Your task to perform on an android device: Search for seafood restaurants on Google Maps Image 0: 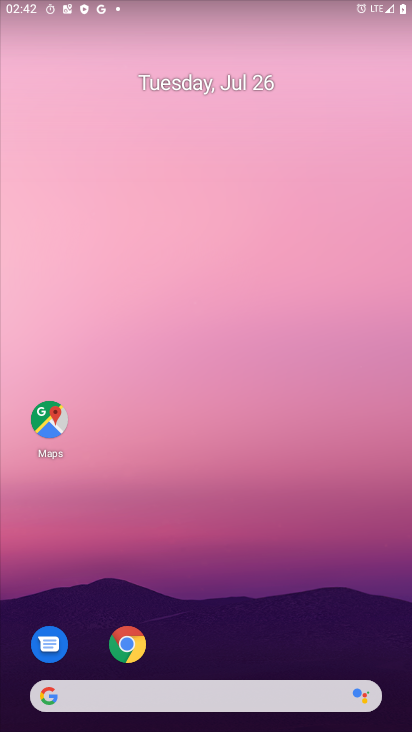
Step 0: click (53, 421)
Your task to perform on an android device: Search for seafood restaurants on Google Maps Image 1: 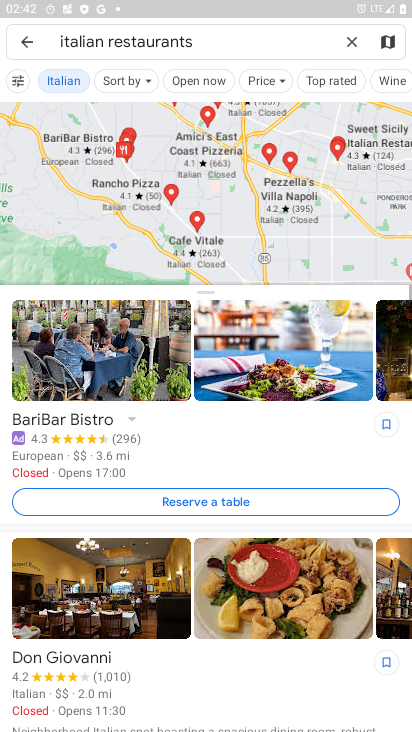
Step 1: click (356, 42)
Your task to perform on an android device: Search for seafood restaurants on Google Maps Image 2: 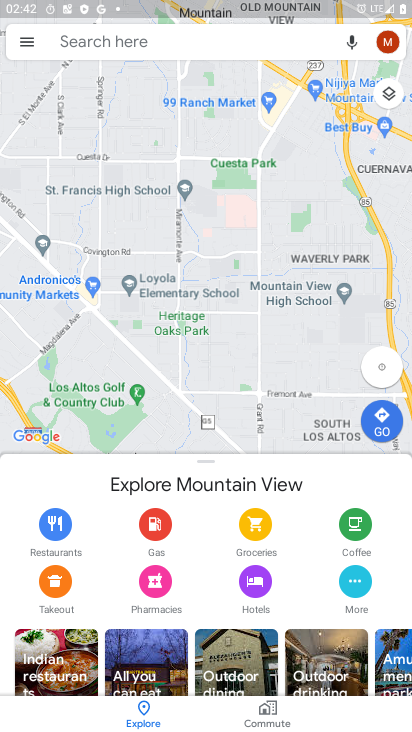
Step 2: click (126, 47)
Your task to perform on an android device: Search for seafood restaurants on Google Maps Image 3: 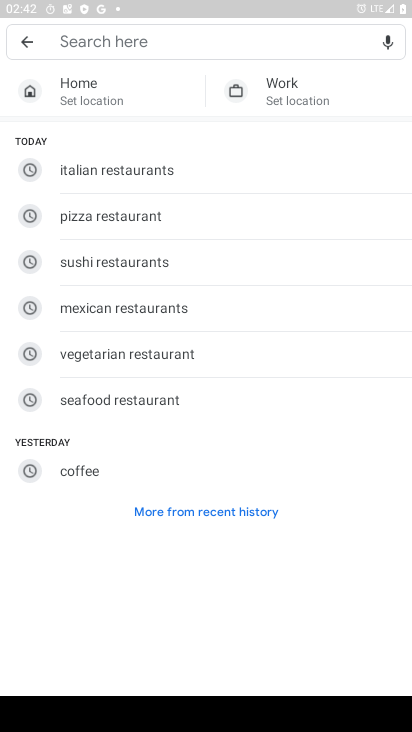
Step 3: type "seafood restaurants"
Your task to perform on an android device: Search for seafood restaurants on Google Maps Image 4: 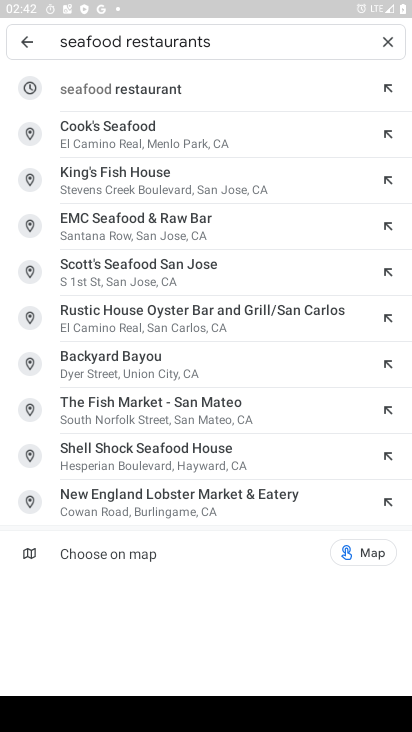
Step 4: click (130, 98)
Your task to perform on an android device: Search for seafood restaurants on Google Maps Image 5: 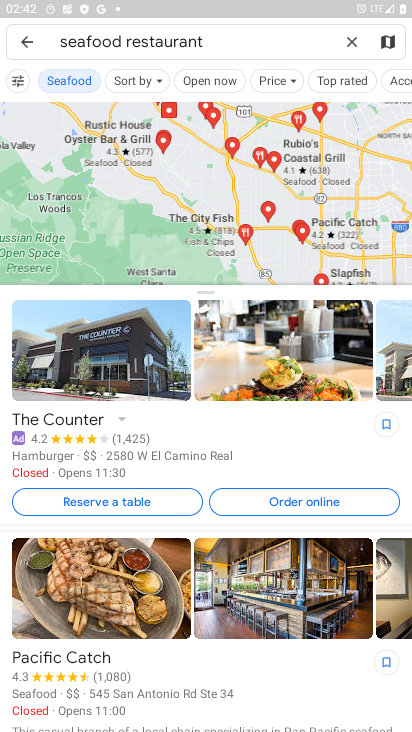
Step 5: click (228, 38)
Your task to perform on an android device: Search for seafood restaurants on Google Maps Image 6: 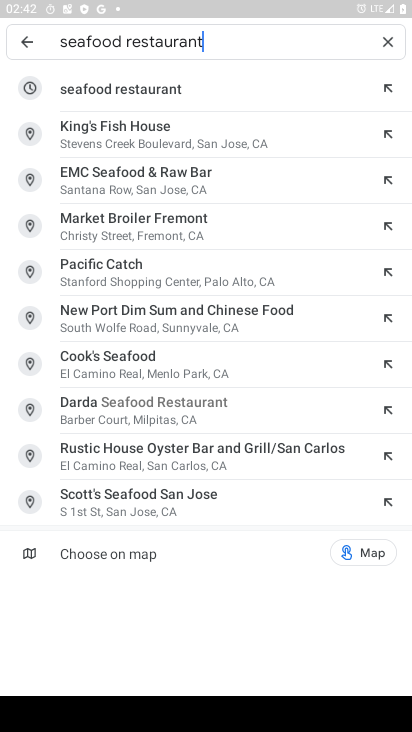
Step 6: click (172, 93)
Your task to perform on an android device: Search for seafood restaurants on Google Maps Image 7: 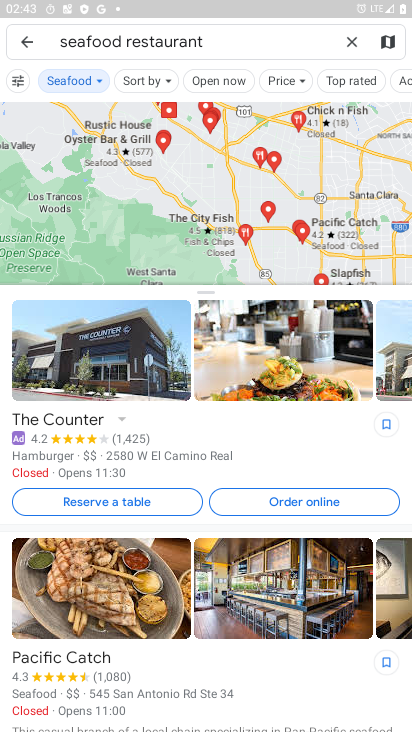
Step 7: task complete